Your task to perform on an android device: Open the phone app and click the voicemail tab. Image 0: 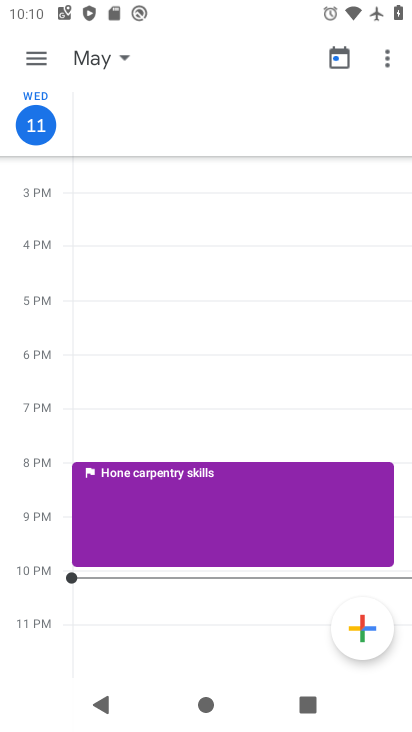
Step 0: press home button
Your task to perform on an android device: Open the phone app and click the voicemail tab. Image 1: 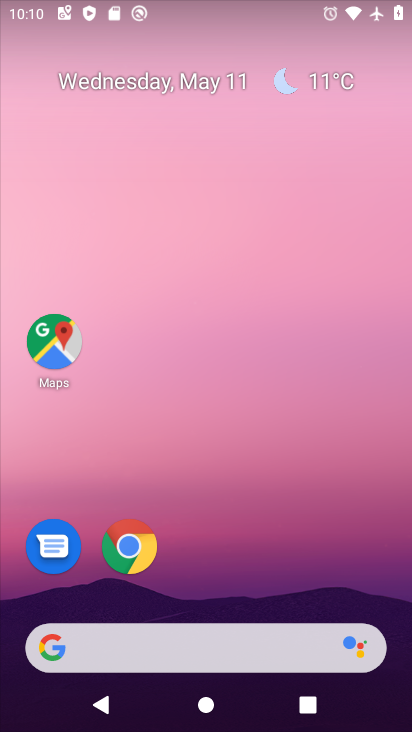
Step 1: drag from (388, 601) to (282, 94)
Your task to perform on an android device: Open the phone app and click the voicemail tab. Image 2: 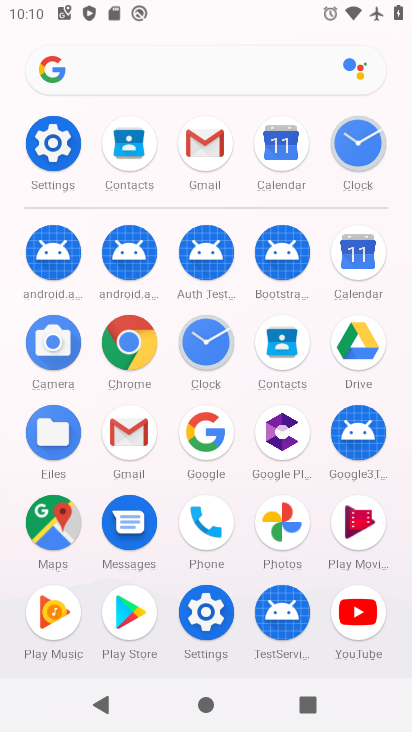
Step 2: click (203, 522)
Your task to perform on an android device: Open the phone app and click the voicemail tab. Image 3: 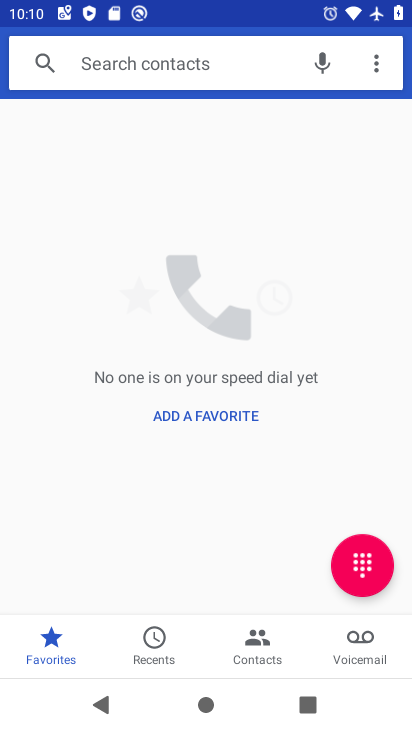
Step 3: click (363, 645)
Your task to perform on an android device: Open the phone app and click the voicemail tab. Image 4: 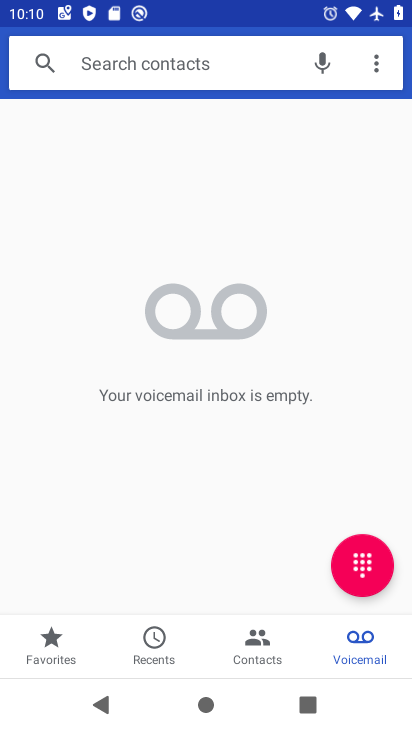
Step 4: task complete